Your task to perform on an android device: turn notification dots off Image 0: 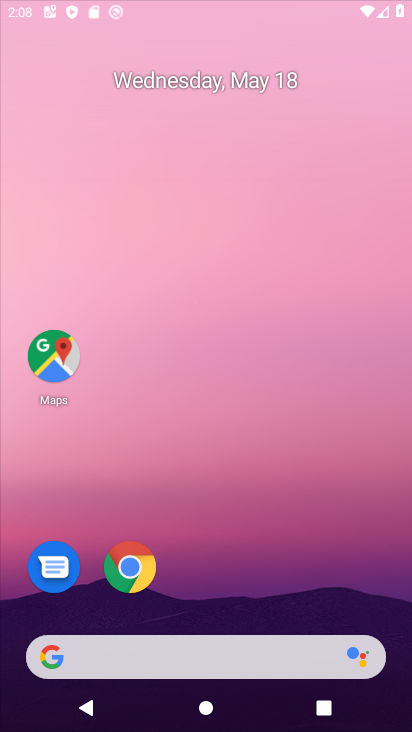
Step 0: drag from (282, 600) to (288, 343)
Your task to perform on an android device: turn notification dots off Image 1: 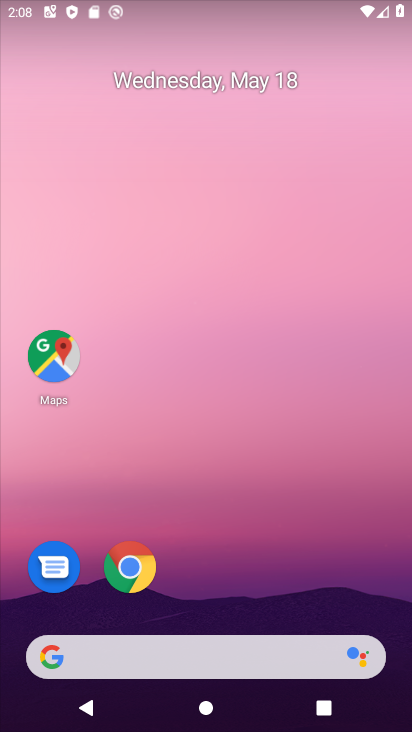
Step 1: drag from (241, 635) to (268, 356)
Your task to perform on an android device: turn notification dots off Image 2: 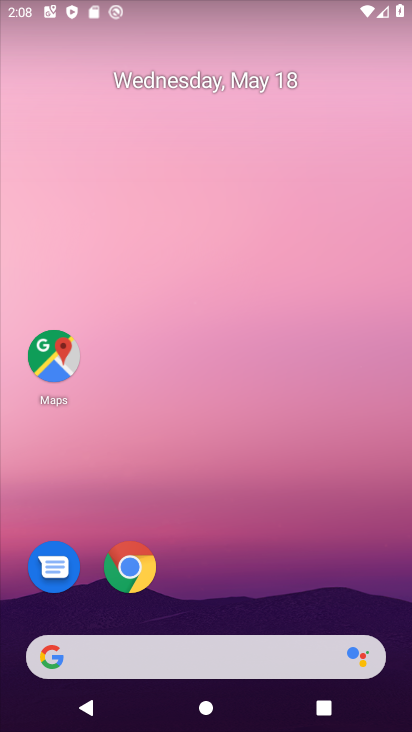
Step 2: drag from (206, 607) to (247, 312)
Your task to perform on an android device: turn notification dots off Image 3: 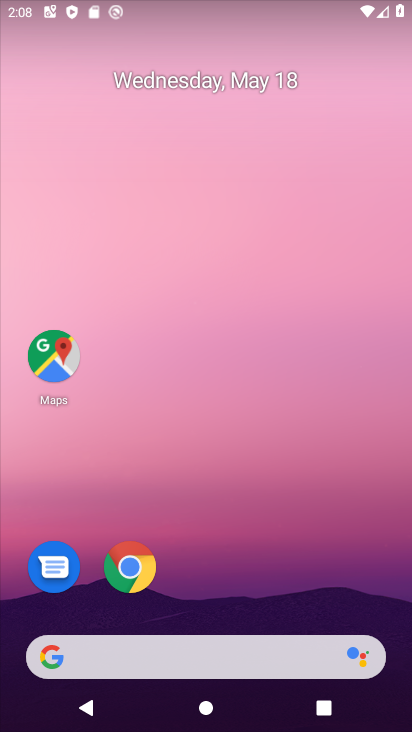
Step 3: drag from (207, 636) to (254, 185)
Your task to perform on an android device: turn notification dots off Image 4: 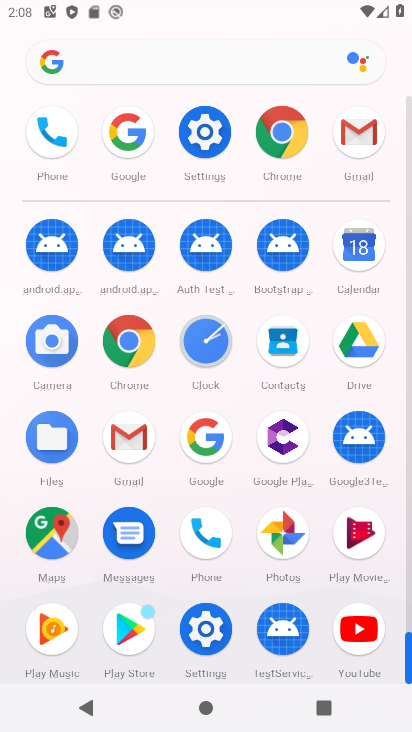
Step 4: click (214, 114)
Your task to perform on an android device: turn notification dots off Image 5: 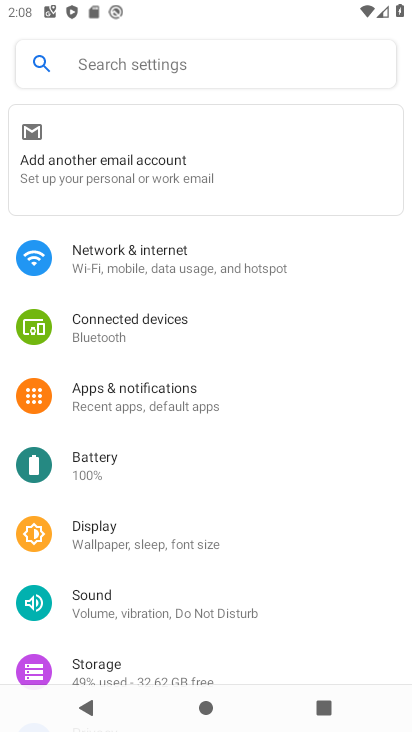
Step 5: click (209, 63)
Your task to perform on an android device: turn notification dots off Image 6: 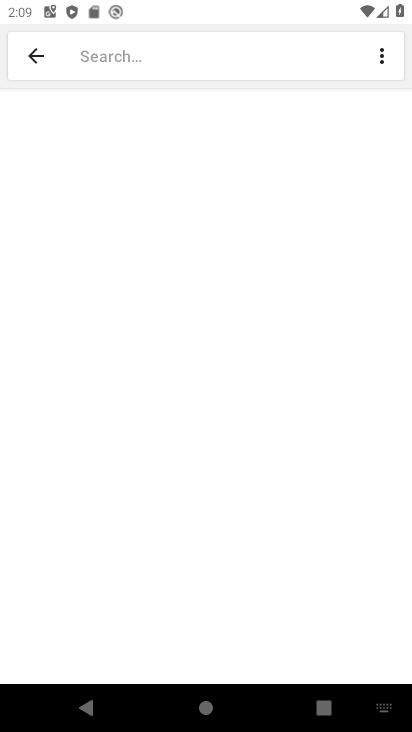
Step 6: click (213, 38)
Your task to perform on an android device: turn notification dots off Image 7: 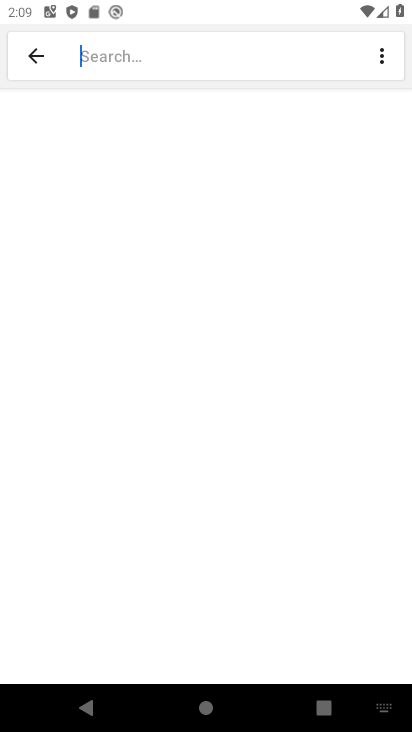
Step 7: type " notification dots"
Your task to perform on an android device: turn notification dots off Image 8: 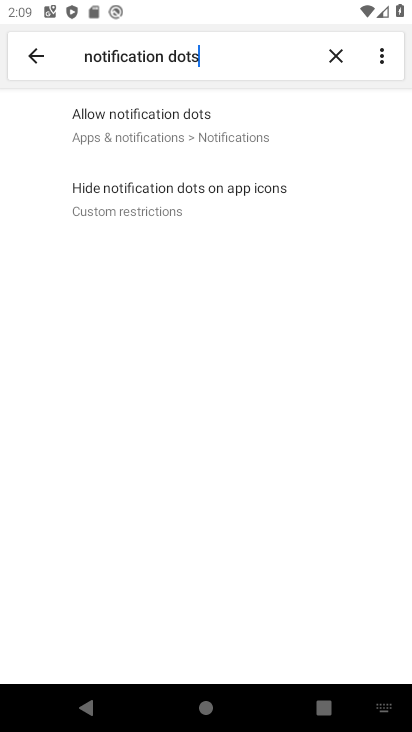
Step 8: click (186, 125)
Your task to perform on an android device: turn notification dots off Image 9: 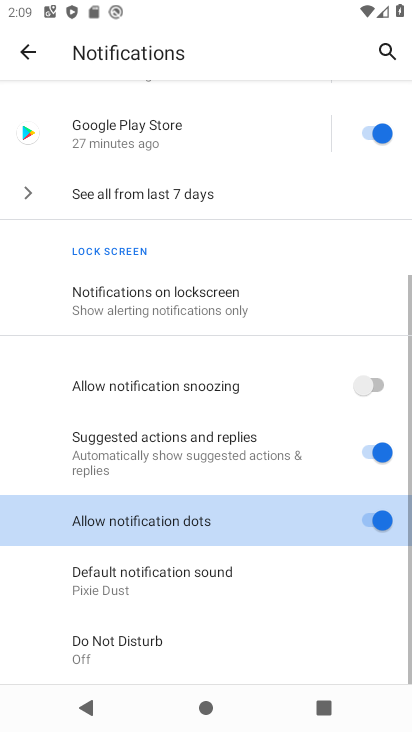
Step 9: click (374, 509)
Your task to perform on an android device: turn notification dots off Image 10: 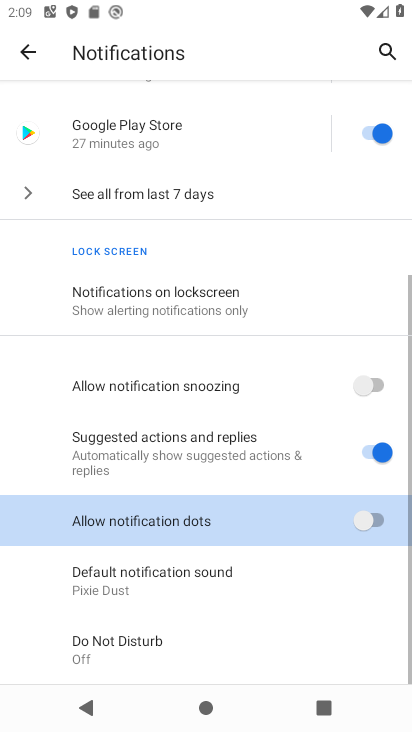
Step 10: task complete